Your task to perform on an android device: Open settings Image 0: 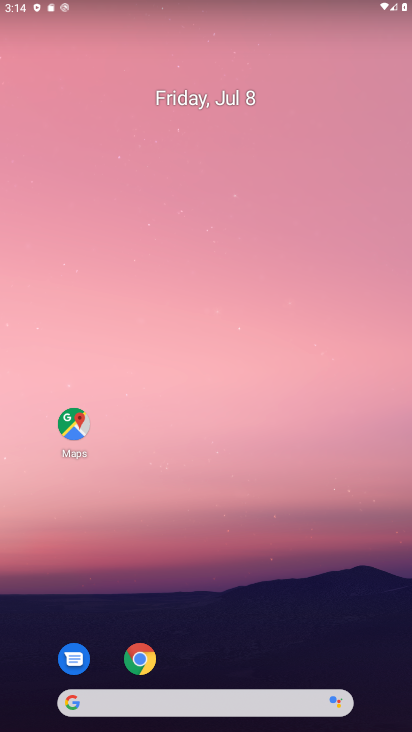
Step 0: click (242, 463)
Your task to perform on an android device: Open settings Image 1: 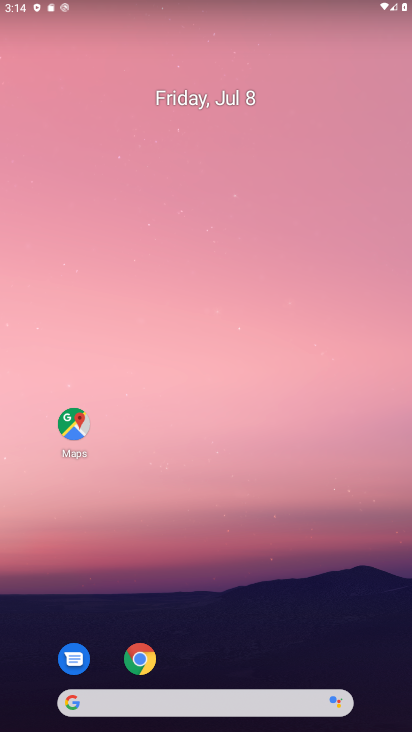
Step 1: drag from (65, 579) to (408, 202)
Your task to perform on an android device: Open settings Image 2: 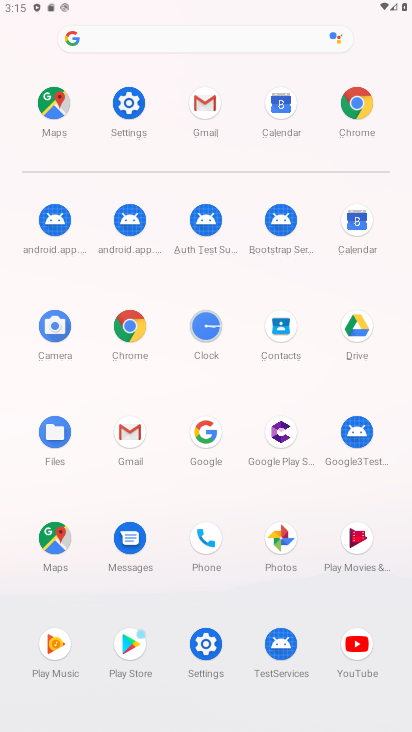
Step 2: click (203, 656)
Your task to perform on an android device: Open settings Image 3: 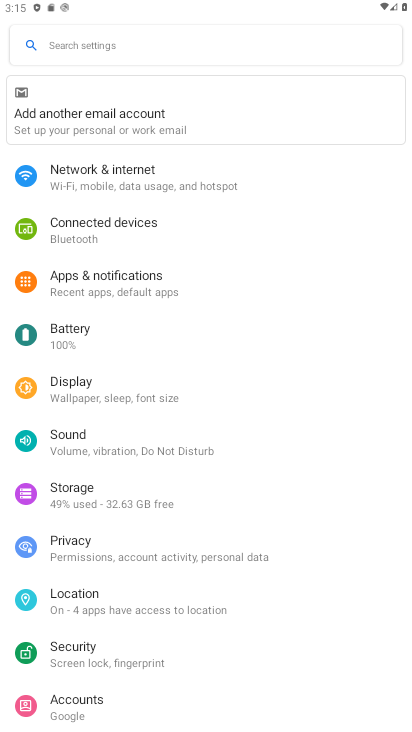
Step 3: task complete